Your task to perform on an android device: What's the weather? Image 0: 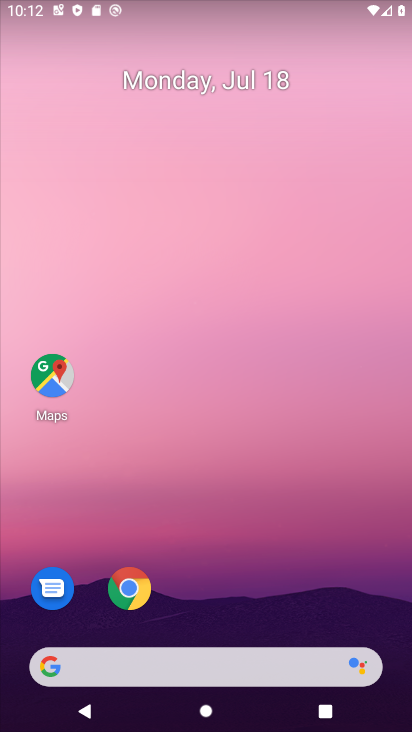
Step 0: drag from (239, 665) to (239, 191)
Your task to perform on an android device: What's the weather? Image 1: 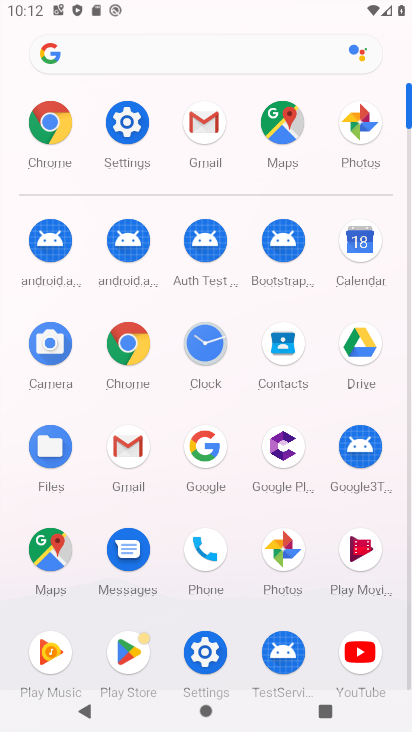
Step 1: click (199, 442)
Your task to perform on an android device: What's the weather? Image 2: 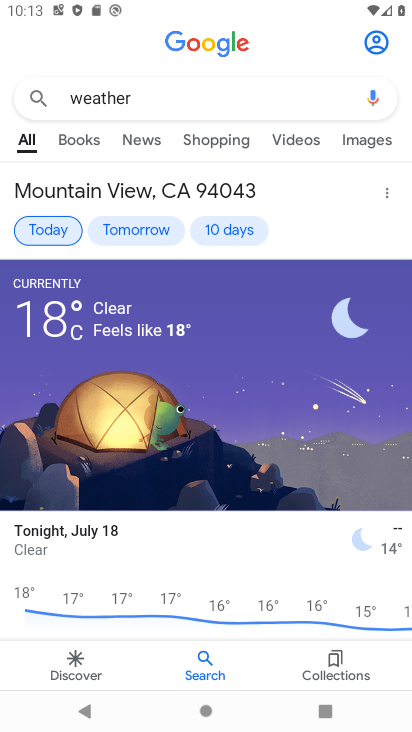
Step 2: click (48, 233)
Your task to perform on an android device: What's the weather? Image 3: 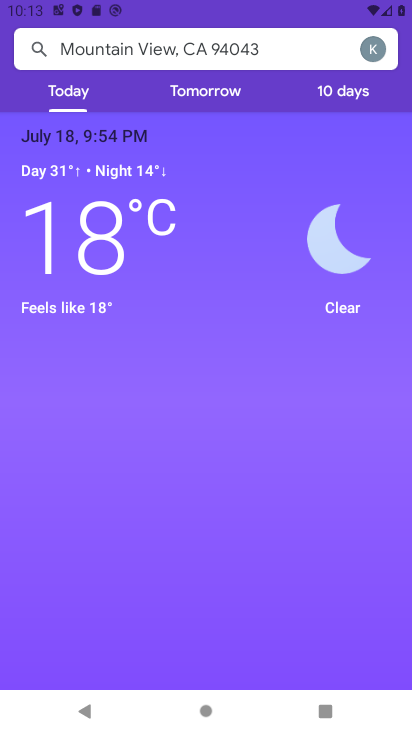
Step 3: task complete